Your task to perform on an android device: When is my next appointment? Image 0: 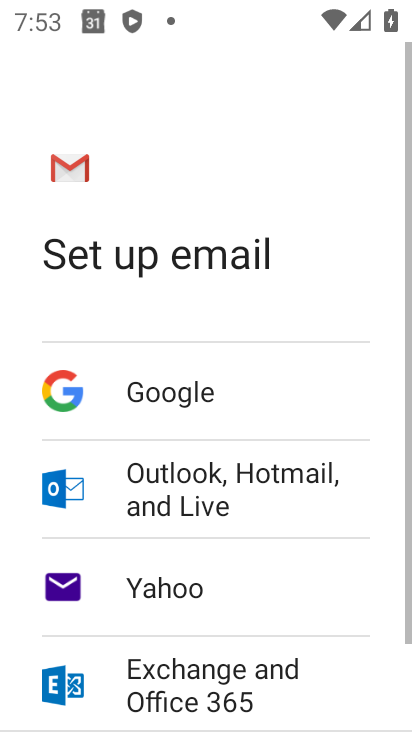
Step 0: press home button
Your task to perform on an android device: When is my next appointment? Image 1: 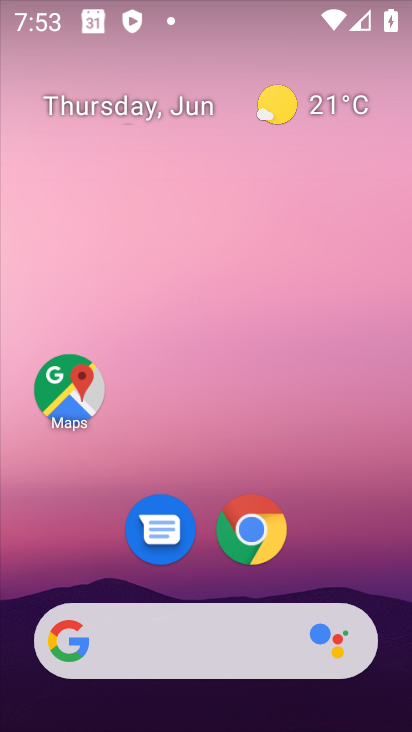
Step 1: drag from (375, 421) to (370, 140)
Your task to perform on an android device: When is my next appointment? Image 2: 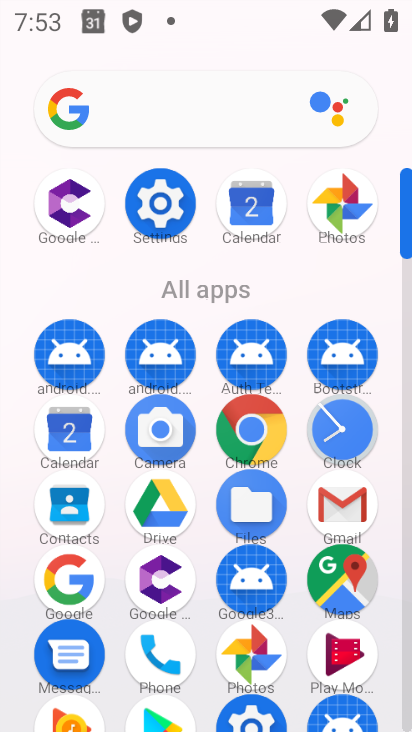
Step 2: click (65, 435)
Your task to perform on an android device: When is my next appointment? Image 3: 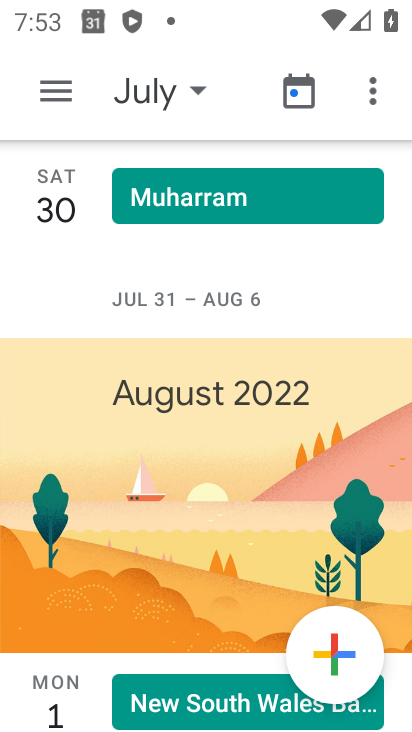
Step 3: click (202, 94)
Your task to perform on an android device: When is my next appointment? Image 4: 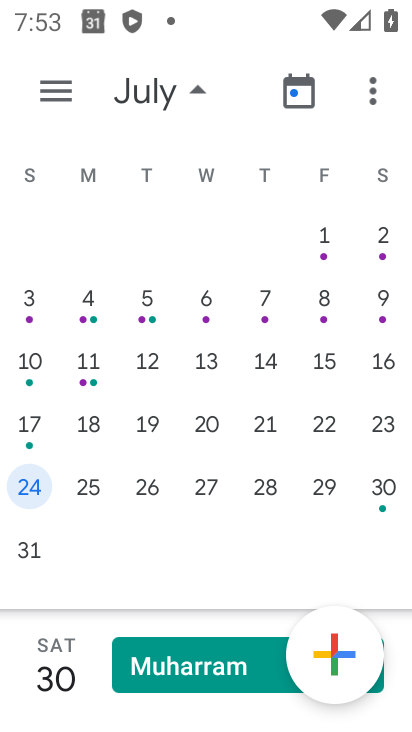
Step 4: drag from (81, 231) to (389, 229)
Your task to perform on an android device: When is my next appointment? Image 5: 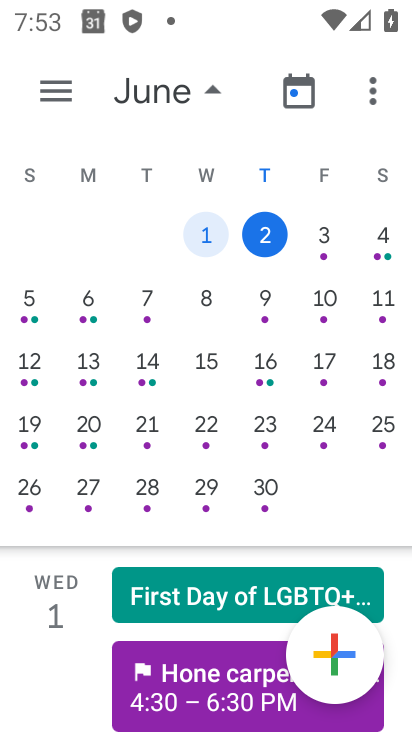
Step 5: click (48, 84)
Your task to perform on an android device: When is my next appointment? Image 6: 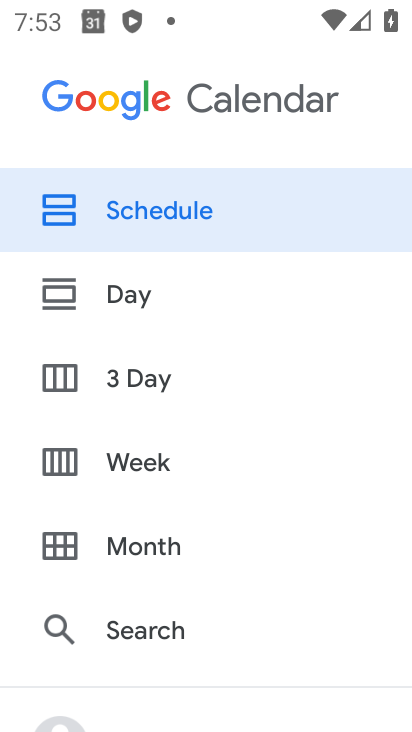
Step 6: drag from (227, 637) to (234, 304)
Your task to perform on an android device: When is my next appointment? Image 7: 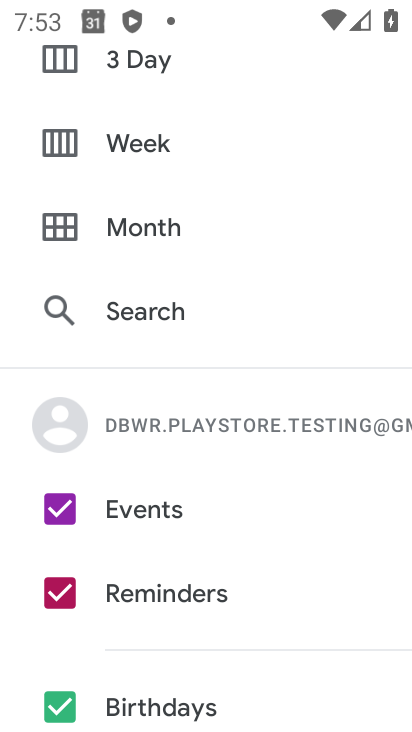
Step 7: drag from (282, 661) to (280, 457)
Your task to perform on an android device: When is my next appointment? Image 8: 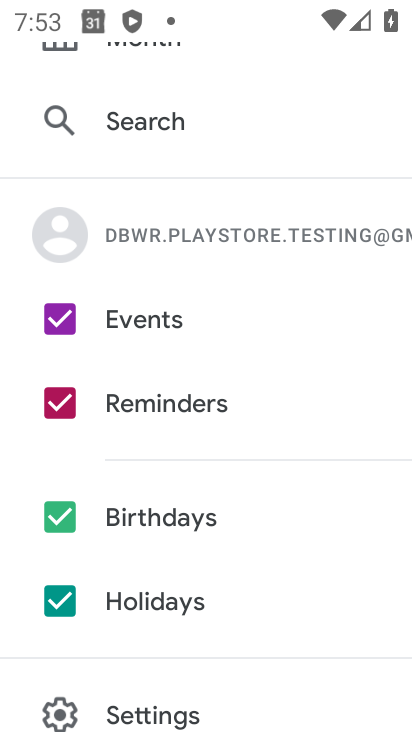
Step 8: click (66, 594)
Your task to perform on an android device: When is my next appointment? Image 9: 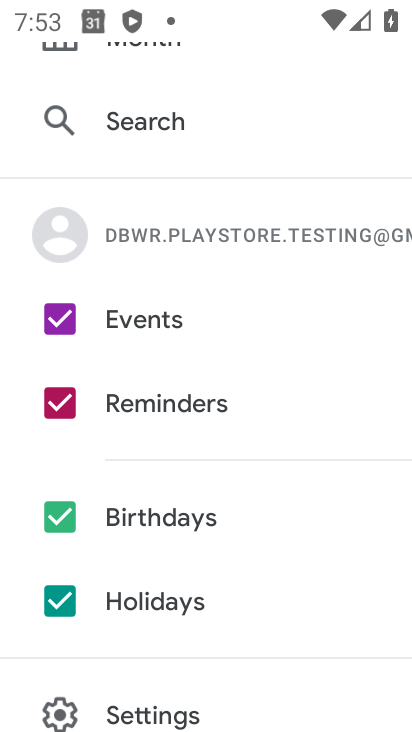
Step 9: click (50, 511)
Your task to perform on an android device: When is my next appointment? Image 10: 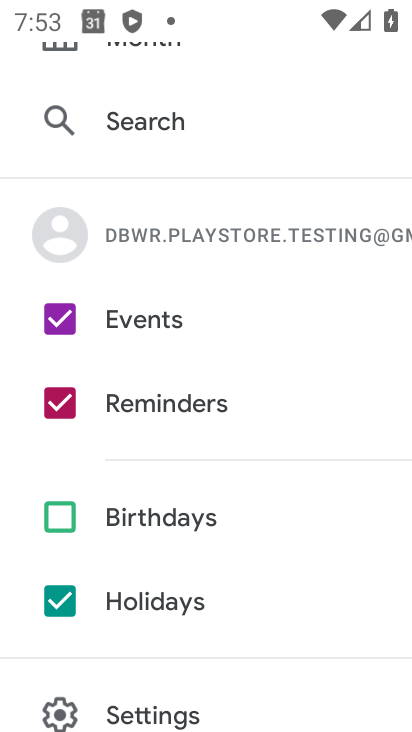
Step 10: click (49, 405)
Your task to perform on an android device: When is my next appointment? Image 11: 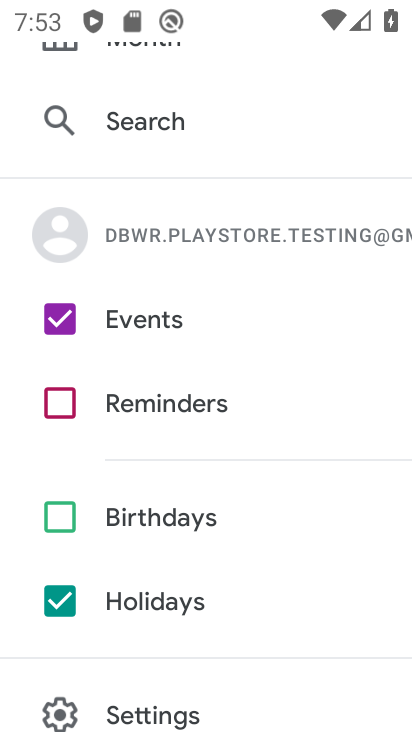
Step 11: click (61, 613)
Your task to perform on an android device: When is my next appointment? Image 12: 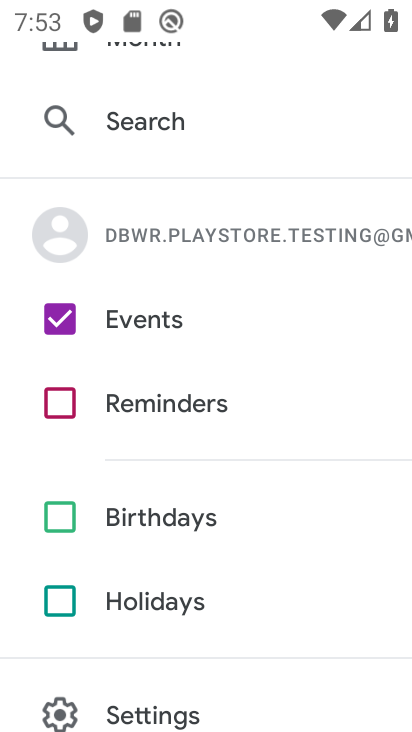
Step 12: drag from (246, 149) to (254, 589)
Your task to perform on an android device: When is my next appointment? Image 13: 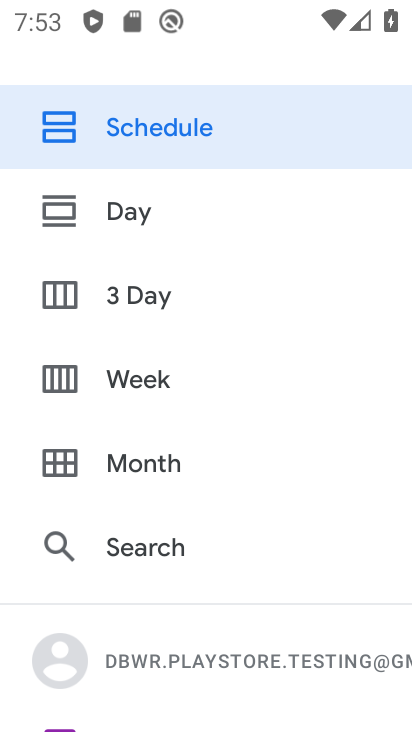
Step 13: click (142, 121)
Your task to perform on an android device: When is my next appointment? Image 14: 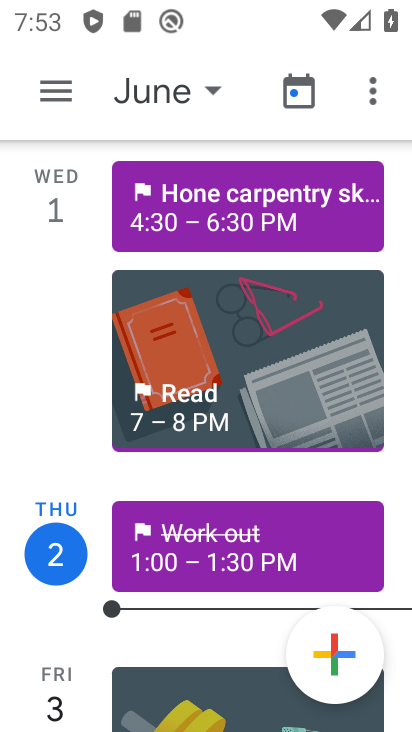
Step 14: task complete